Your task to perform on an android device: Go to internet settings Image 0: 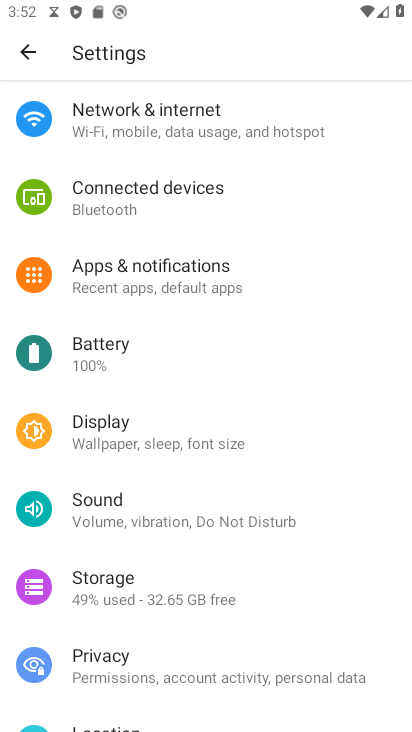
Step 0: click (162, 130)
Your task to perform on an android device: Go to internet settings Image 1: 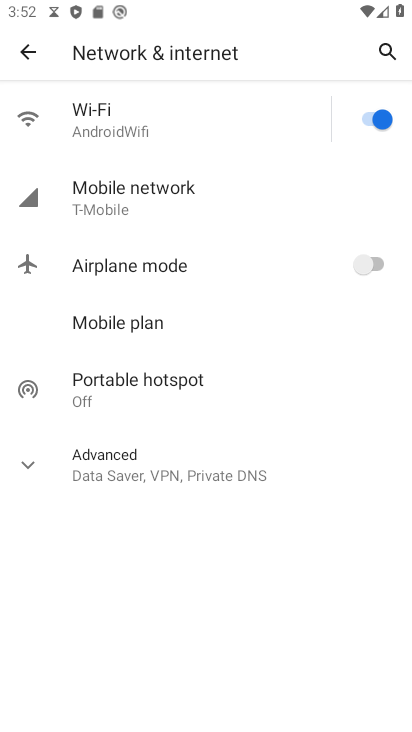
Step 1: task complete